Your task to perform on an android device: Open accessibility settings Image 0: 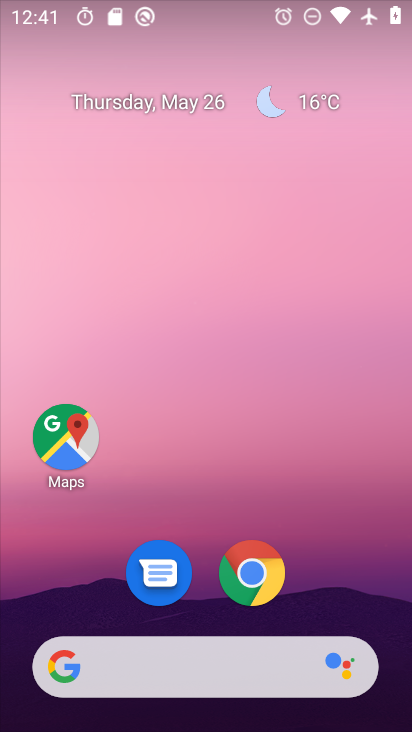
Step 0: drag from (345, 618) to (344, 19)
Your task to perform on an android device: Open accessibility settings Image 1: 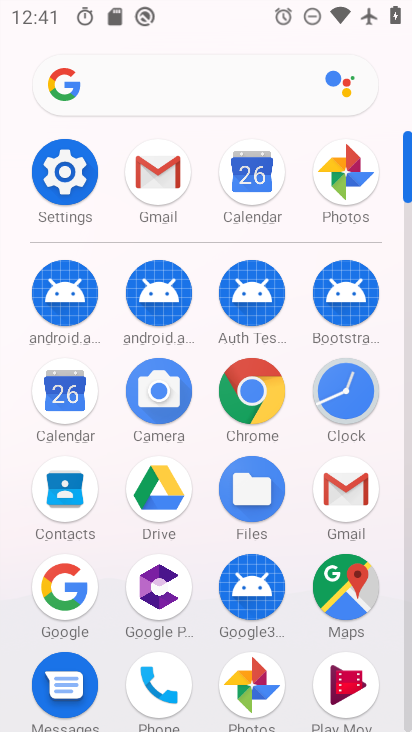
Step 1: click (58, 169)
Your task to perform on an android device: Open accessibility settings Image 2: 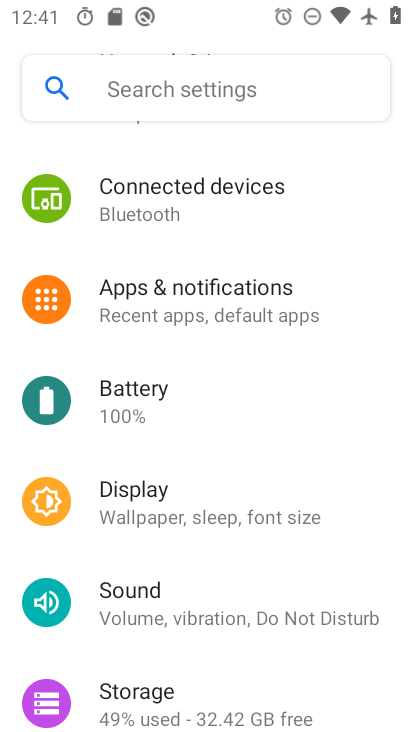
Step 2: drag from (298, 483) to (319, 114)
Your task to perform on an android device: Open accessibility settings Image 3: 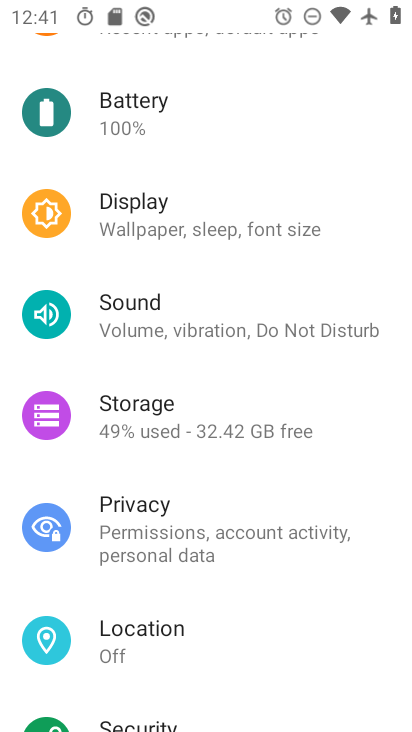
Step 3: drag from (217, 563) to (250, 277)
Your task to perform on an android device: Open accessibility settings Image 4: 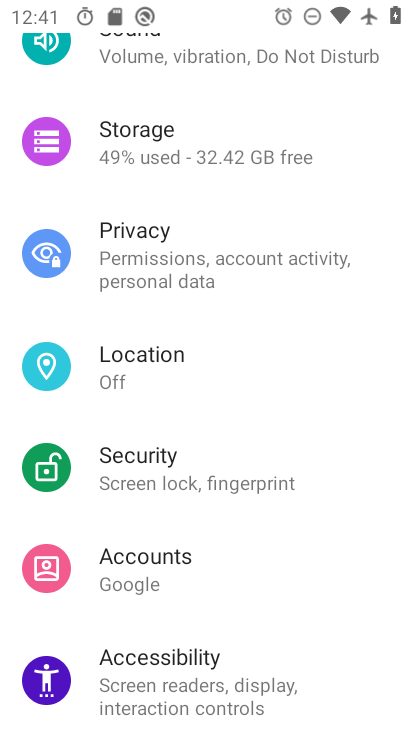
Step 4: click (137, 698)
Your task to perform on an android device: Open accessibility settings Image 5: 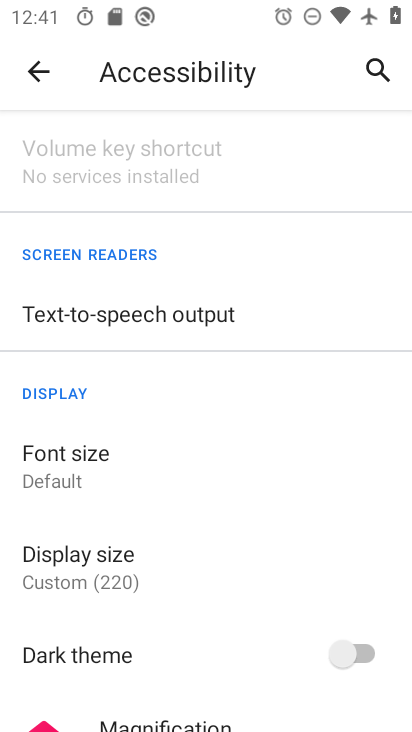
Step 5: task complete